Your task to perform on an android device: Do I have any events this weekend? Image 0: 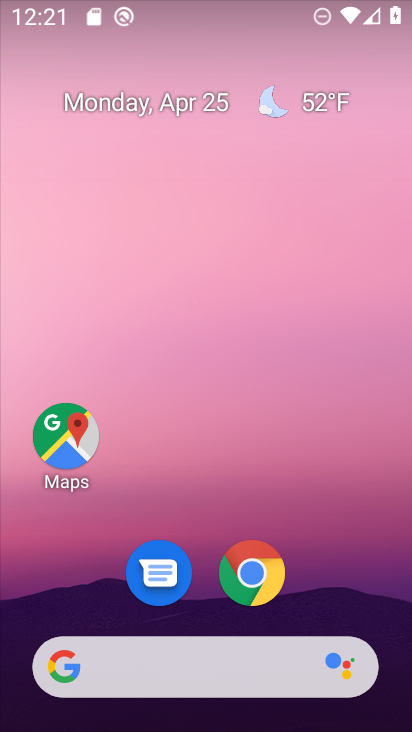
Step 0: drag from (228, 704) to (192, 169)
Your task to perform on an android device: Do I have any events this weekend? Image 1: 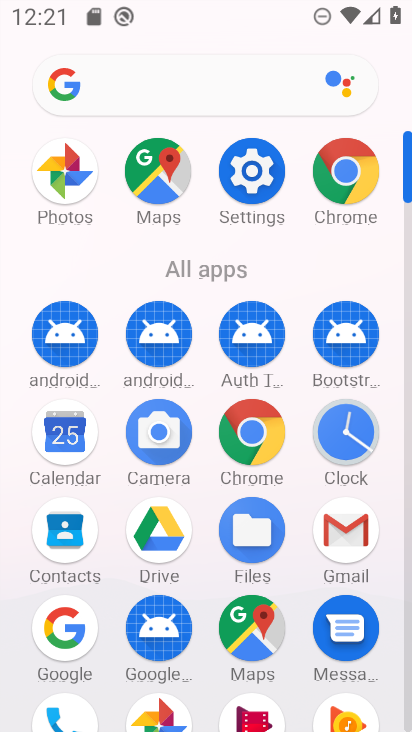
Step 1: click (69, 435)
Your task to perform on an android device: Do I have any events this weekend? Image 2: 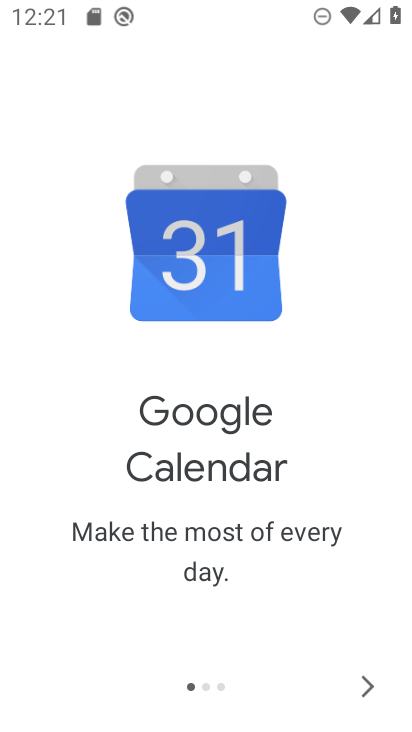
Step 2: click (362, 688)
Your task to perform on an android device: Do I have any events this weekend? Image 3: 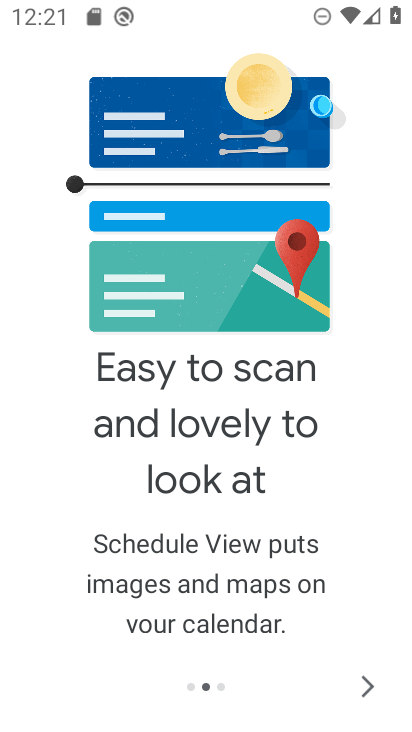
Step 3: click (364, 684)
Your task to perform on an android device: Do I have any events this weekend? Image 4: 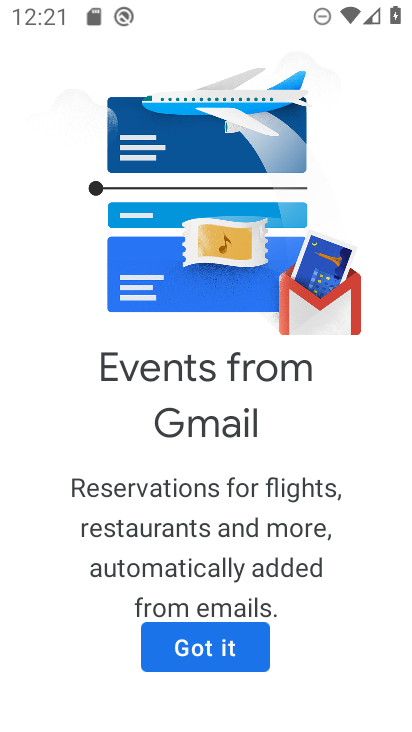
Step 4: click (223, 647)
Your task to perform on an android device: Do I have any events this weekend? Image 5: 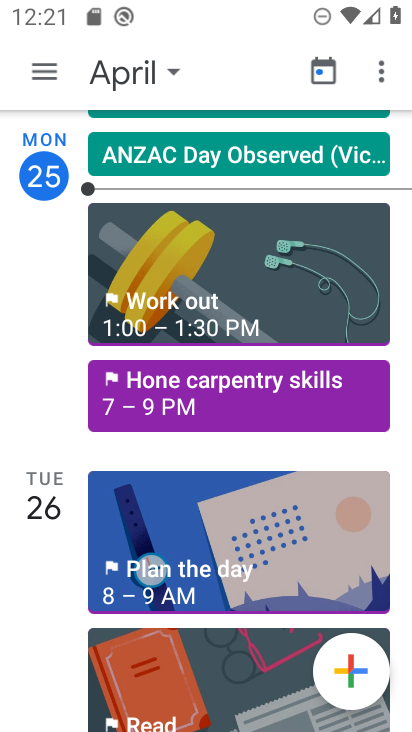
Step 5: click (46, 73)
Your task to perform on an android device: Do I have any events this weekend? Image 6: 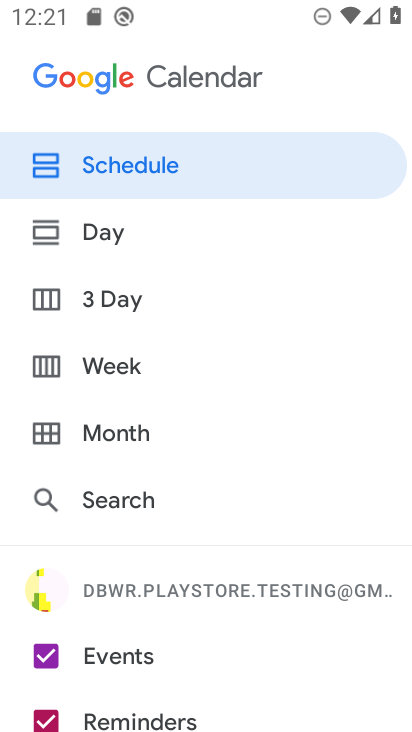
Step 6: drag from (180, 681) to (175, 381)
Your task to perform on an android device: Do I have any events this weekend? Image 7: 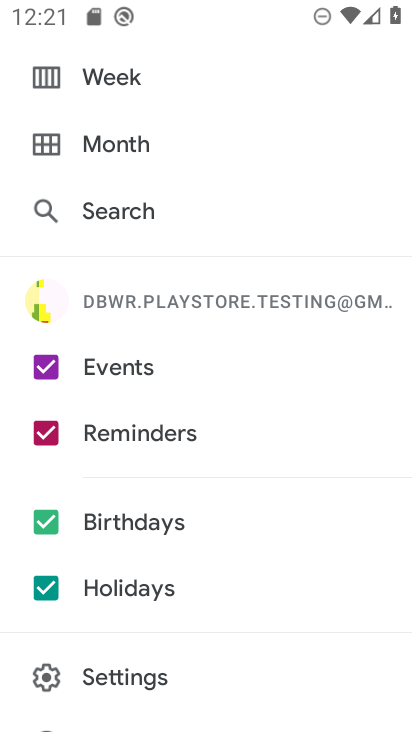
Step 7: click (45, 590)
Your task to perform on an android device: Do I have any events this weekend? Image 8: 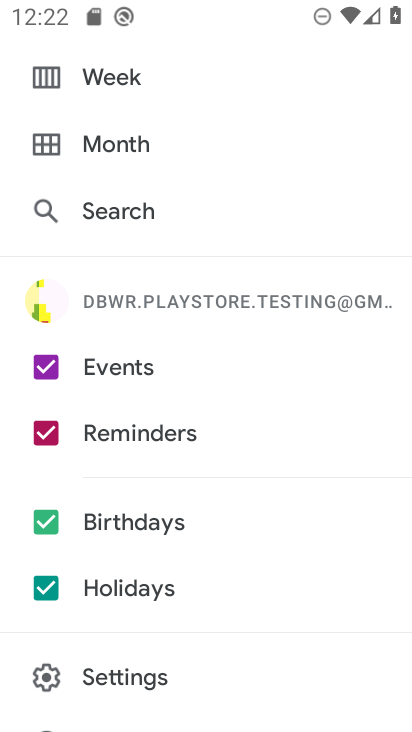
Step 8: click (47, 588)
Your task to perform on an android device: Do I have any events this weekend? Image 9: 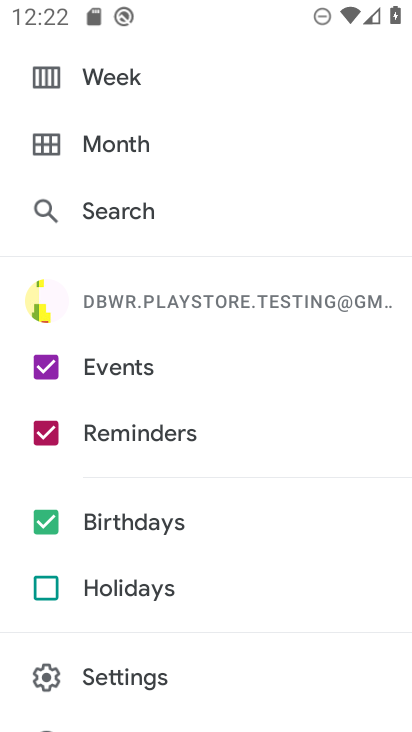
Step 9: click (41, 519)
Your task to perform on an android device: Do I have any events this weekend? Image 10: 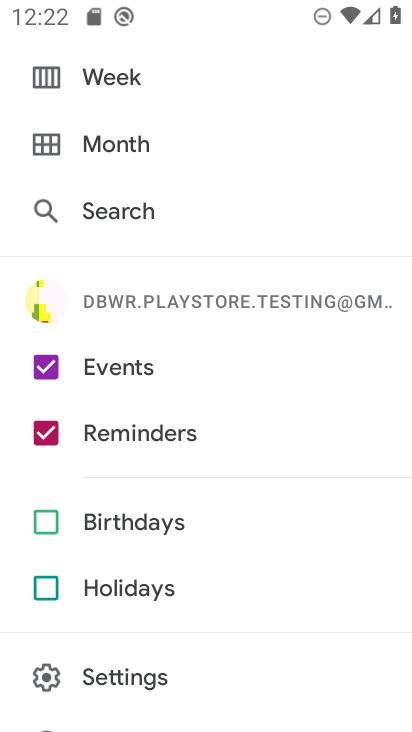
Step 10: click (44, 432)
Your task to perform on an android device: Do I have any events this weekend? Image 11: 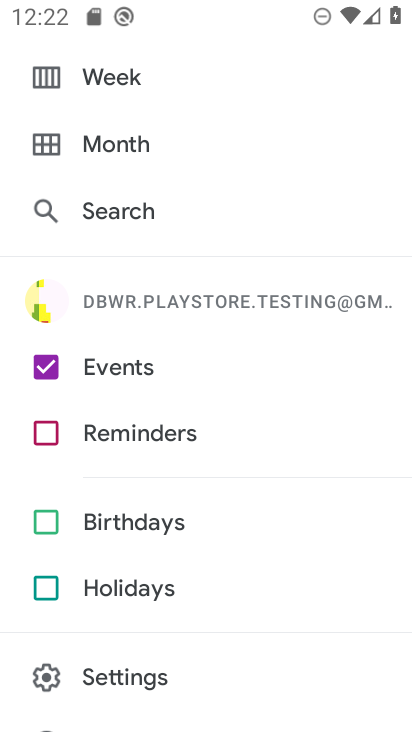
Step 11: drag from (250, 144) to (267, 535)
Your task to perform on an android device: Do I have any events this weekend? Image 12: 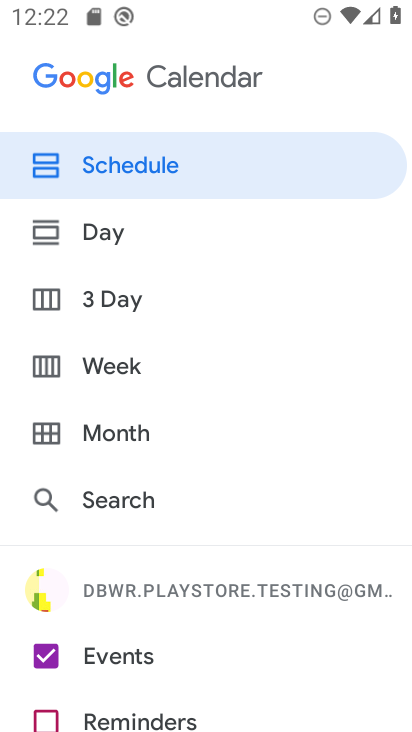
Step 12: click (108, 360)
Your task to perform on an android device: Do I have any events this weekend? Image 13: 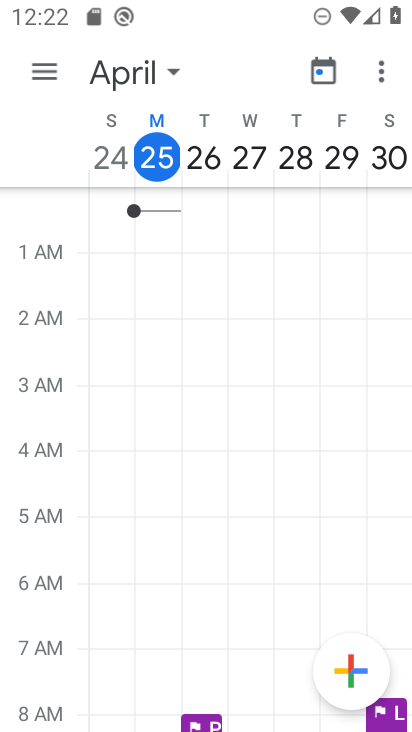
Step 13: drag from (383, 151) to (187, 144)
Your task to perform on an android device: Do I have any events this weekend? Image 14: 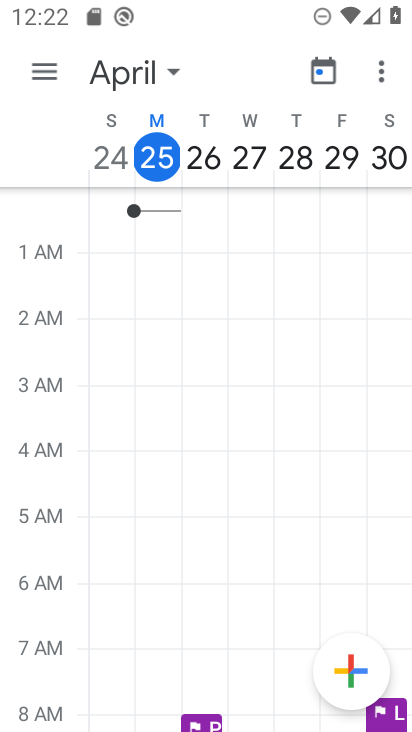
Step 14: click (390, 150)
Your task to perform on an android device: Do I have any events this weekend? Image 15: 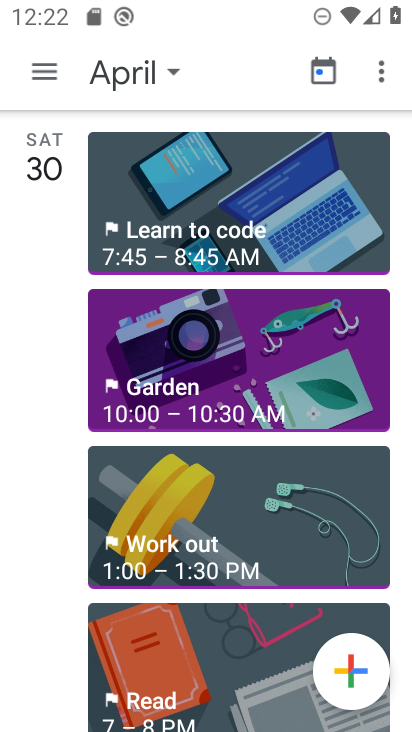
Step 15: task complete